Your task to perform on an android device: see creations saved in the google photos Image 0: 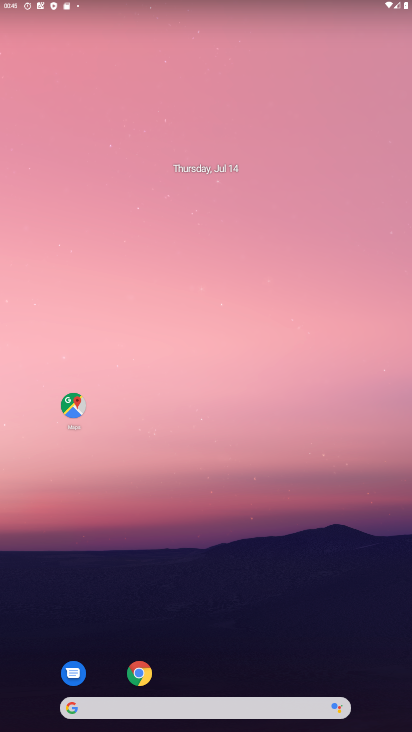
Step 0: drag from (201, 606) to (207, 123)
Your task to perform on an android device: see creations saved in the google photos Image 1: 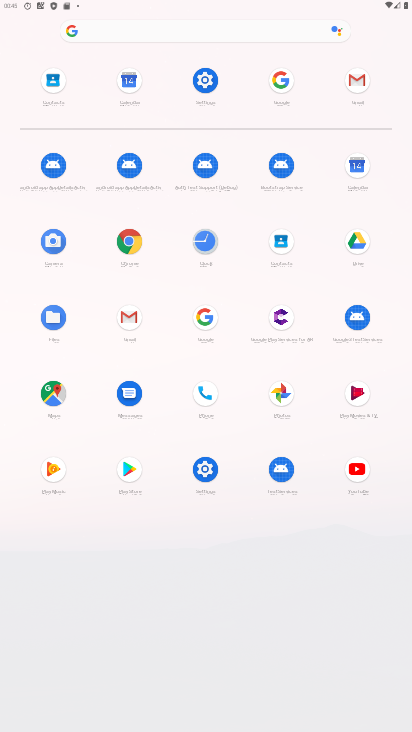
Step 1: click (278, 392)
Your task to perform on an android device: see creations saved in the google photos Image 2: 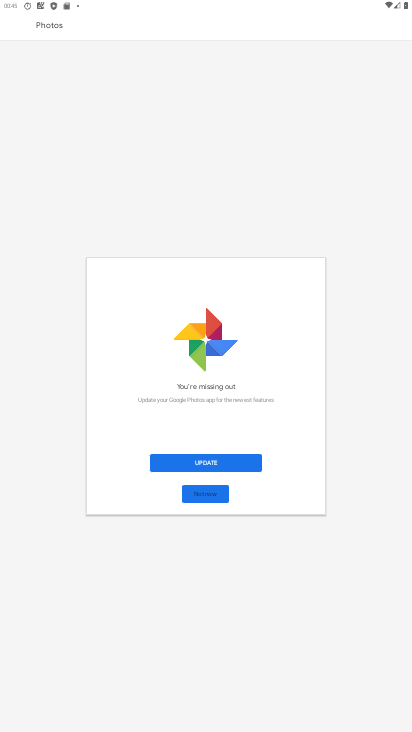
Step 2: click (203, 493)
Your task to perform on an android device: see creations saved in the google photos Image 3: 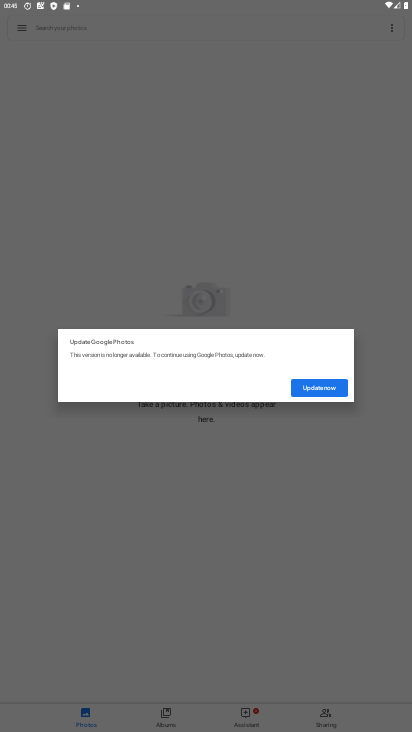
Step 3: click (309, 385)
Your task to perform on an android device: see creations saved in the google photos Image 4: 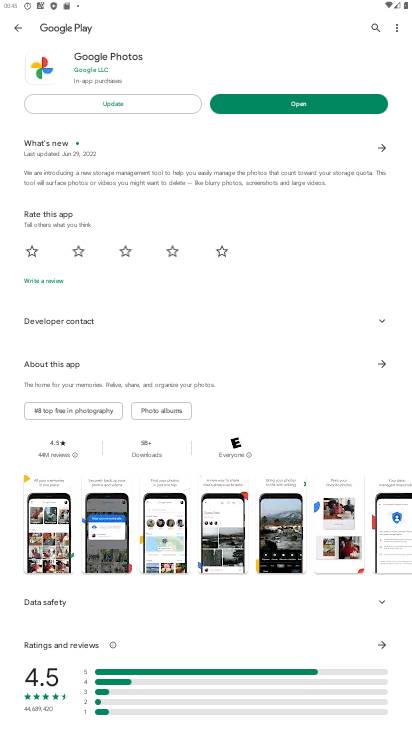
Step 4: click (306, 105)
Your task to perform on an android device: see creations saved in the google photos Image 5: 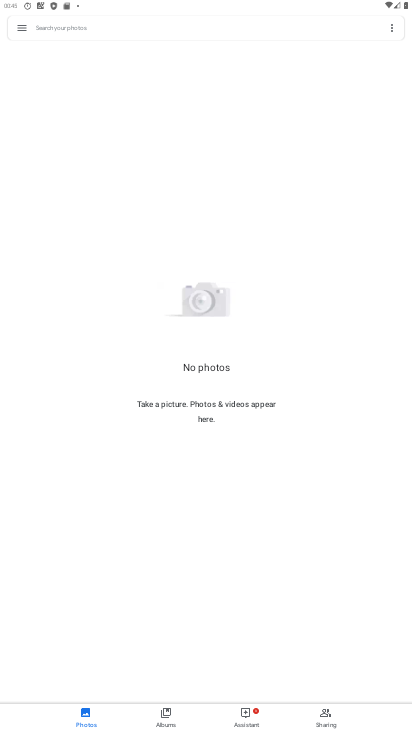
Step 5: click (190, 26)
Your task to perform on an android device: see creations saved in the google photos Image 6: 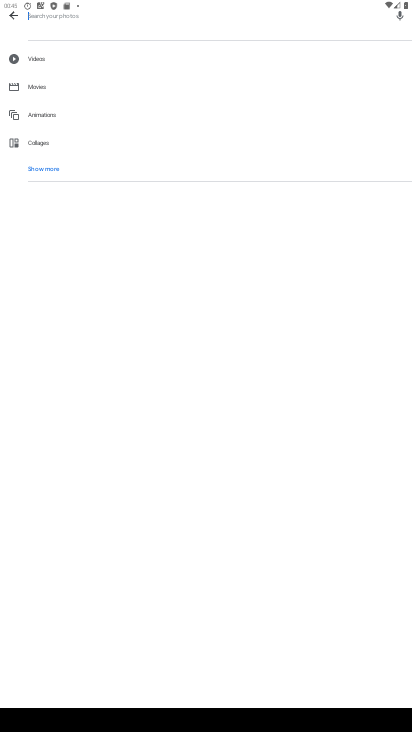
Step 6: click (39, 173)
Your task to perform on an android device: see creations saved in the google photos Image 7: 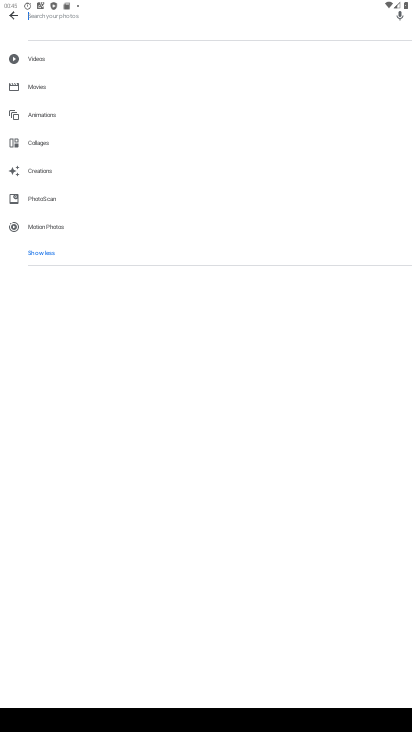
Step 7: click (39, 173)
Your task to perform on an android device: see creations saved in the google photos Image 8: 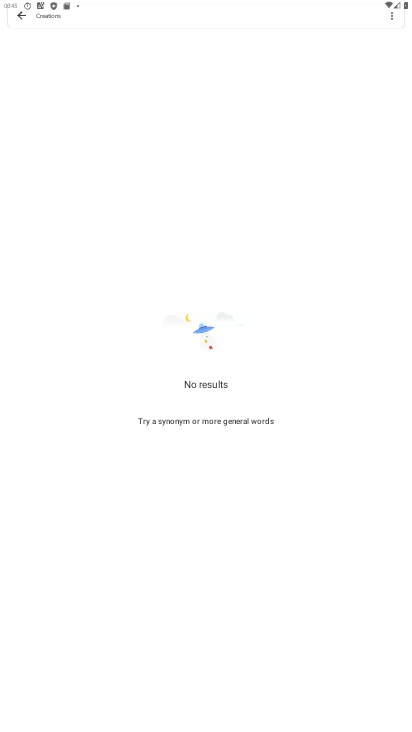
Step 8: task complete